Your task to perform on an android device: See recent photos Image 0: 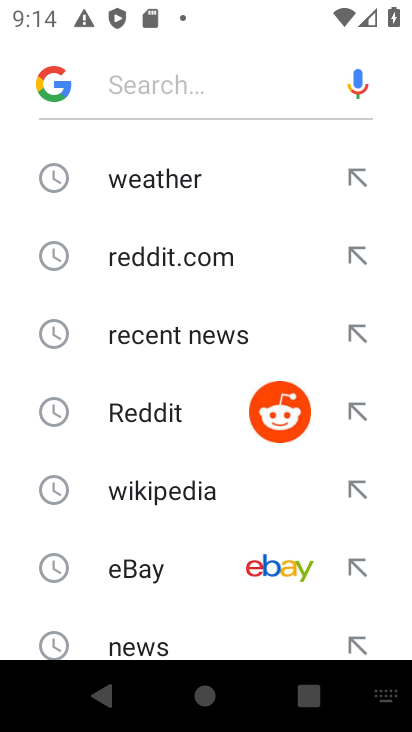
Step 0: press back button
Your task to perform on an android device: See recent photos Image 1: 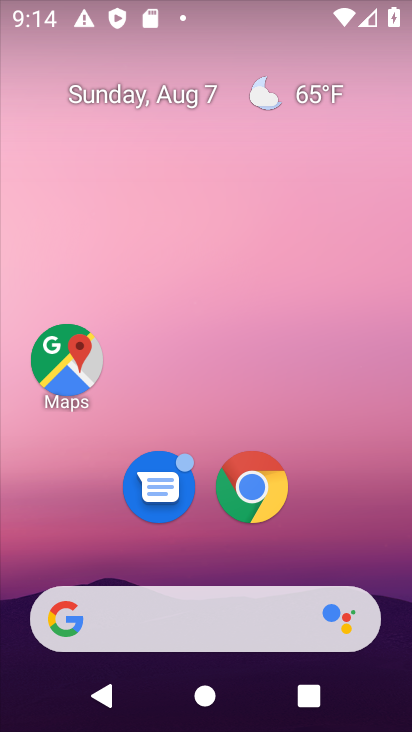
Step 1: drag from (378, 698) to (312, 140)
Your task to perform on an android device: See recent photos Image 2: 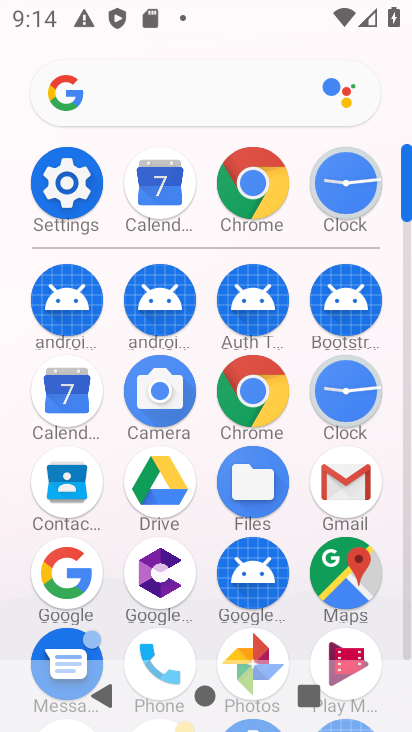
Step 2: click (252, 647)
Your task to perform on an android device: See recent photos Image 3: 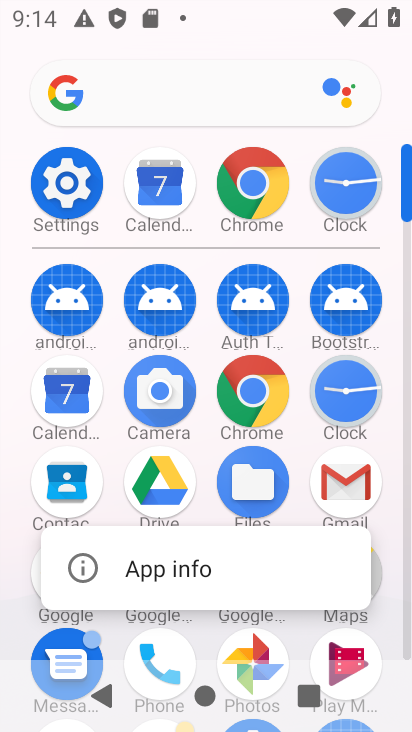
Step 3: click (228, 644)
Your task to perform on an android device: See recent photos Image 4: 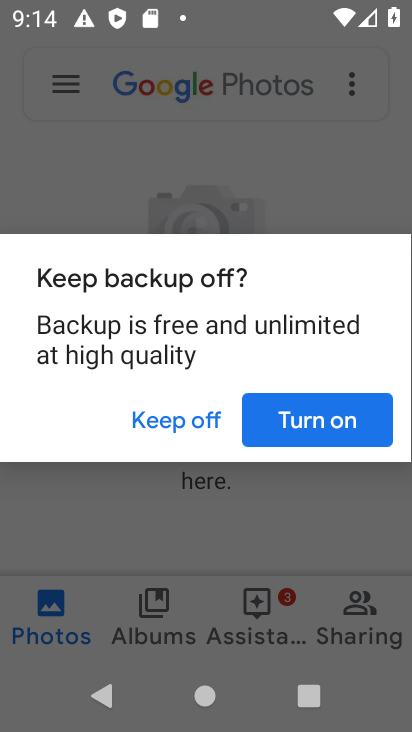
Step 4: click (305, 423)
Your task to perform on an android device: See recent photos Image 5: 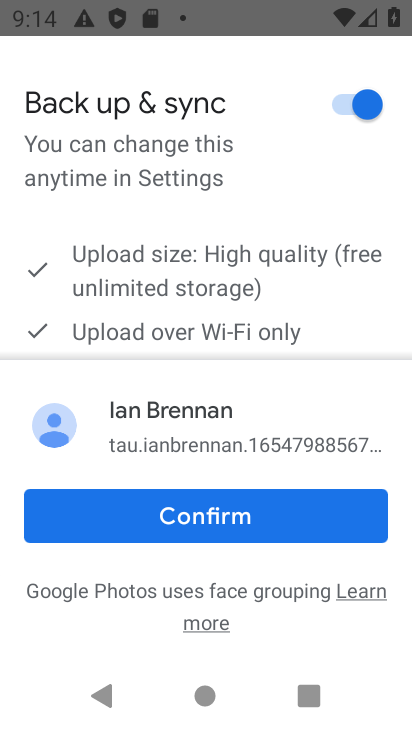
Step 5: click (305, 496)
Your task to perform on an android device: See recent photos Image 6: 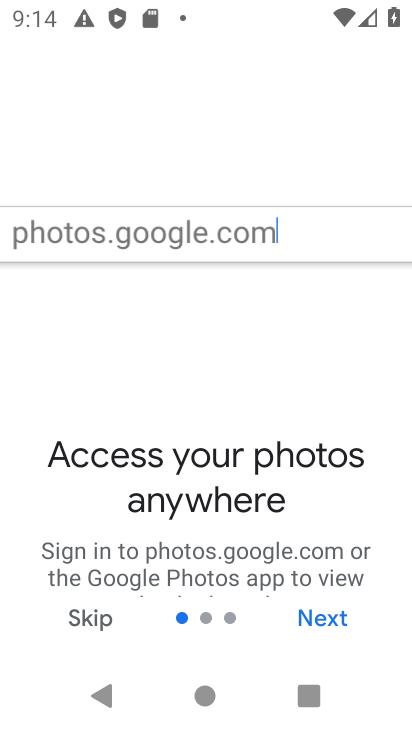
Step 6: click (332, 624)
Your task to perform on an android device: See recent photos Image 7: 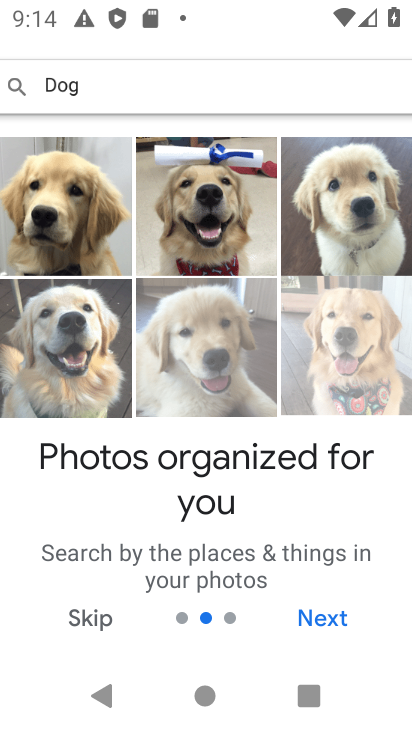
Step 7: click (335, 616)
Your task to perform on an android device: See recent photos Image 8: 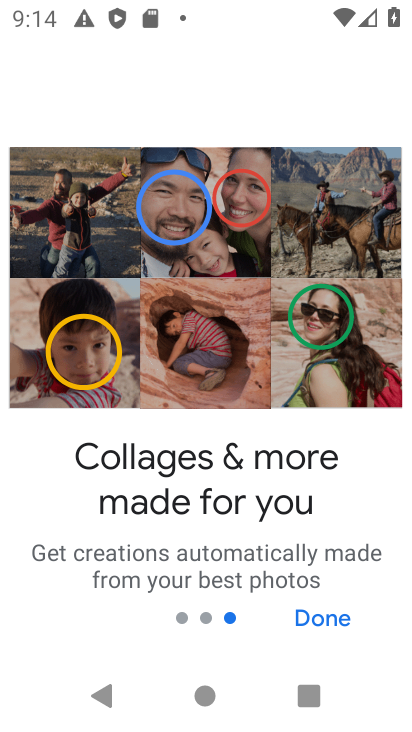
Step 8: click (335, 616)
Your task to perform on an android device: See recent photos Image 9: 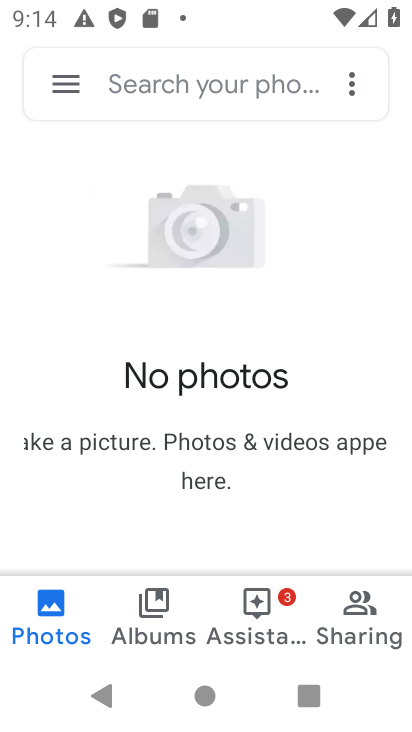
Step 9: click (42, 607)
Your task to perform on an android device: See recent photos Image 10: 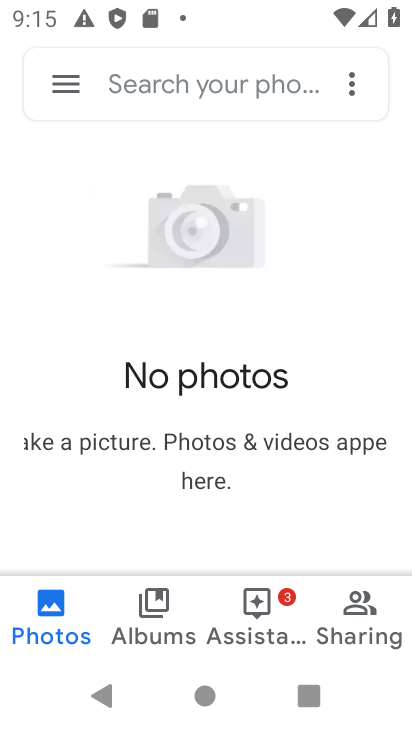
Step 10: task complete